Your task to perform on an android device: stop showing notifications on the lock screen Image 0: 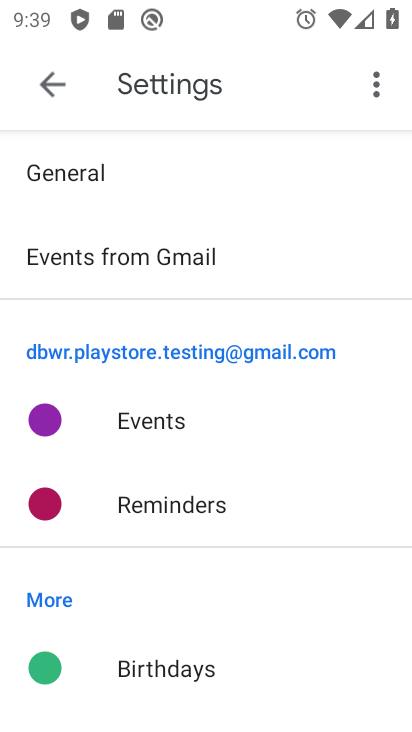
Step 0: press home button
Your task to perform on an android device: stop showing notifications on the lock screen Image 1: 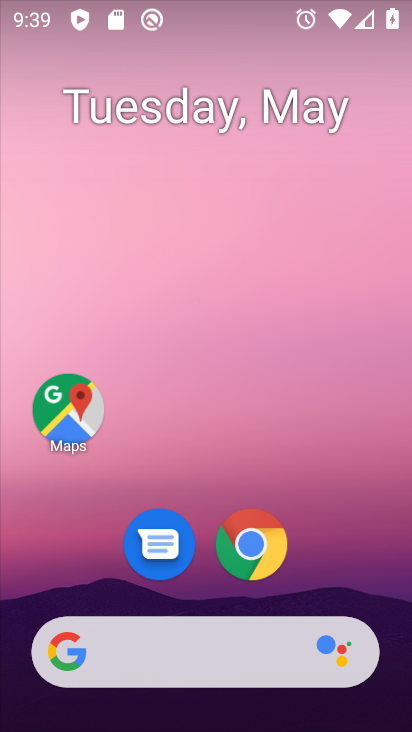
Step 1: drag from (379, 543) to (396, 169)
Your task to perform on an android device: stop showing notifications on the lock screen Image 2: 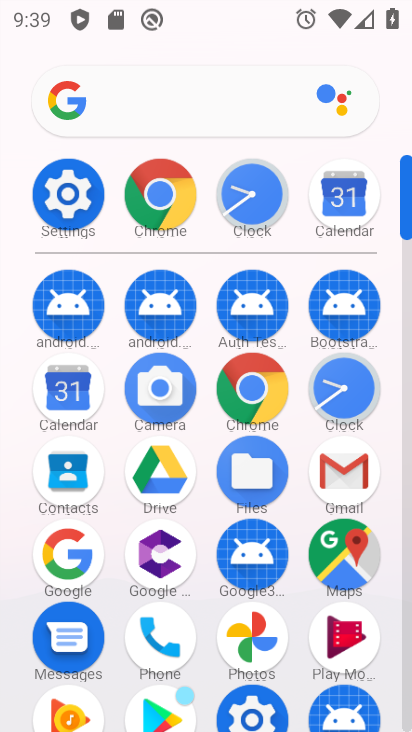
Step 2: click (65, 199)
Your task to perform on an android device: stop showing notifications on the lock screen Image 3: 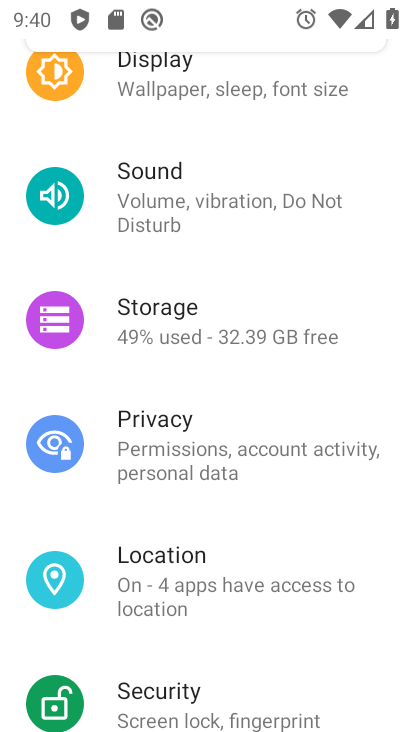
Step 3: drag from (216, 139) to (265, 472)
Your task to perform on an android device: stop showing notifications on the lock screen Image 4: 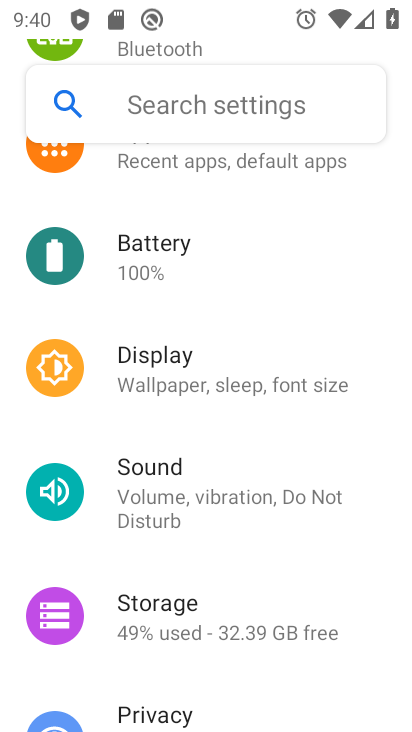
Step 4: drag from (252, 229) to (276, 545)
Your task to perform on an android device: stop showing notifications on the lock screen Image 5: 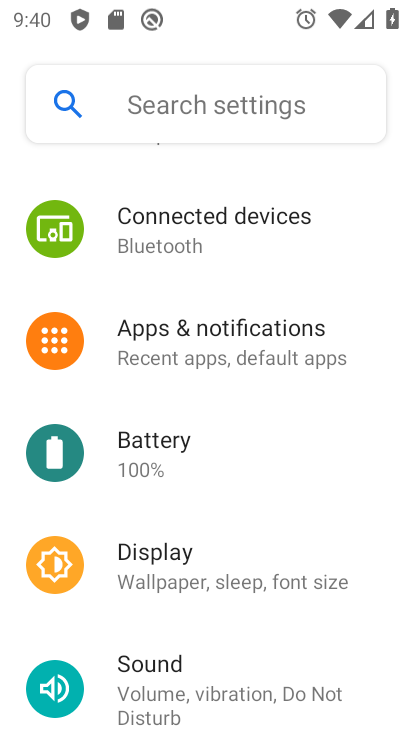
Step 5: click (248, 322)
Your task to perform on an android device: stop showing notifications on the lock screen Image 6: 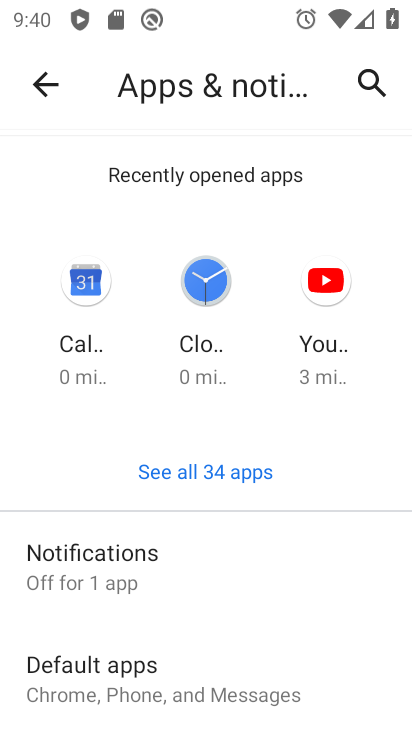
Step 6: click (157, 555)
Your task to perform on an android device: stop showing notifications on the lock screen Image 7: 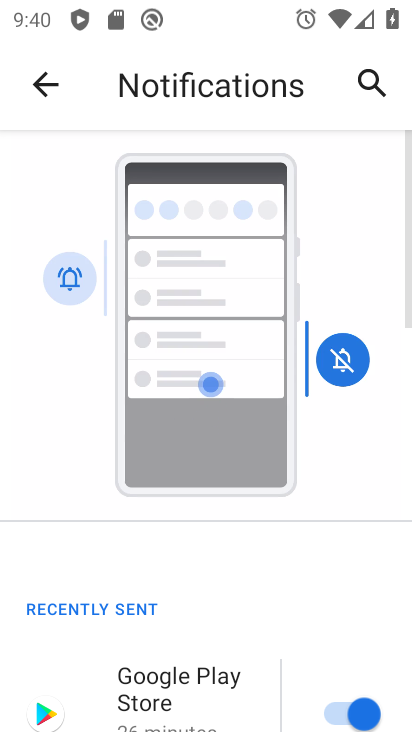
Step 7: drag from (252, 614) to (303, 268)
Your task to perform on an android device: stop showing notifications on the lock screen Image 8: 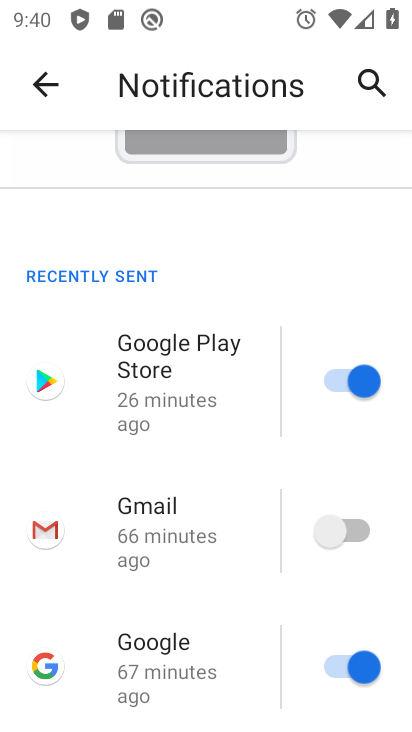
Step 8: drag from (275, 632) to (262, 221)
Your task to perform on an android device: stop showing notifications on the lock screen Image 9: 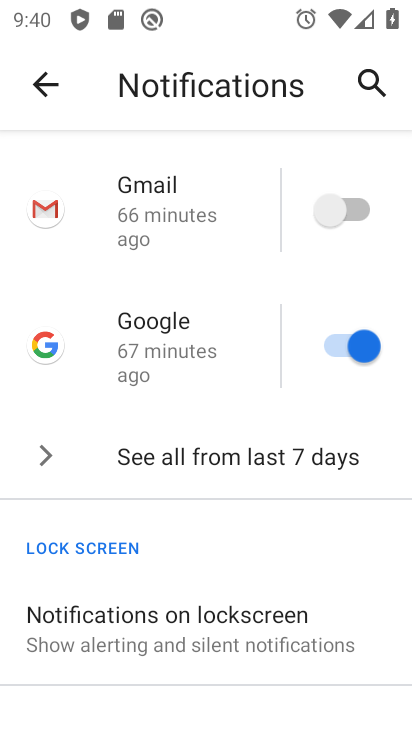
Step 9: click (210, 639)
Your task to perform on an android device: stop showing notifications on the lock screen Image 10: 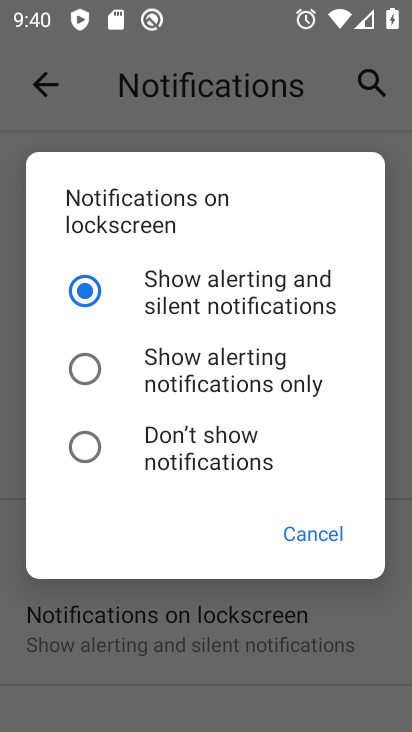
Step 10: click (97, 456)
Your task to perform on an android device: stop showing notifications on the lock screen Image 11: 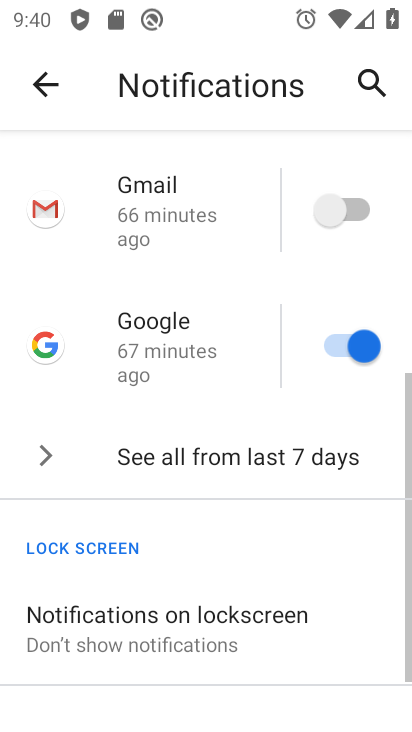
Step 11: task complete